Your task to perform on an android device: Where can I buy a nice beach towel? Image 0: 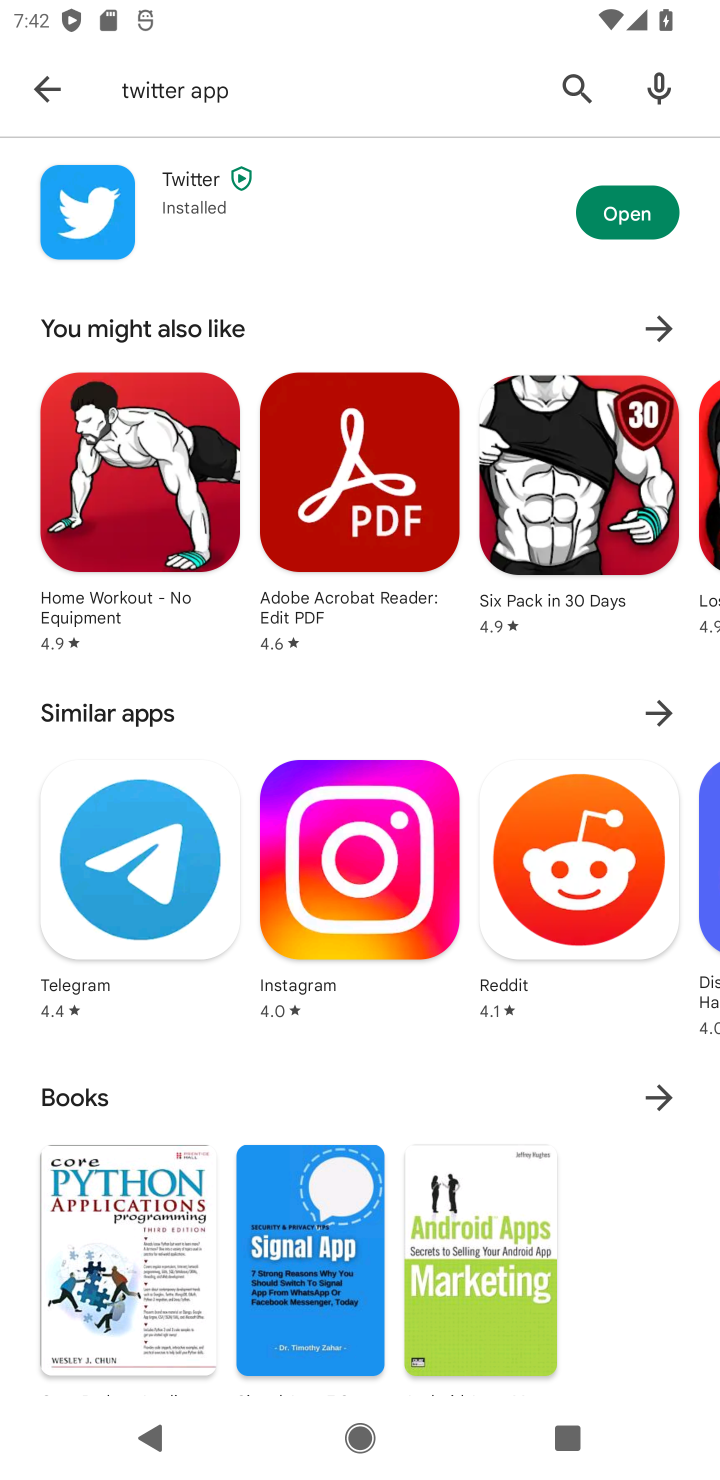
Step 0: press home button
Your task to perform on an android device: Where can I buy a nice beach towel? Image 1: 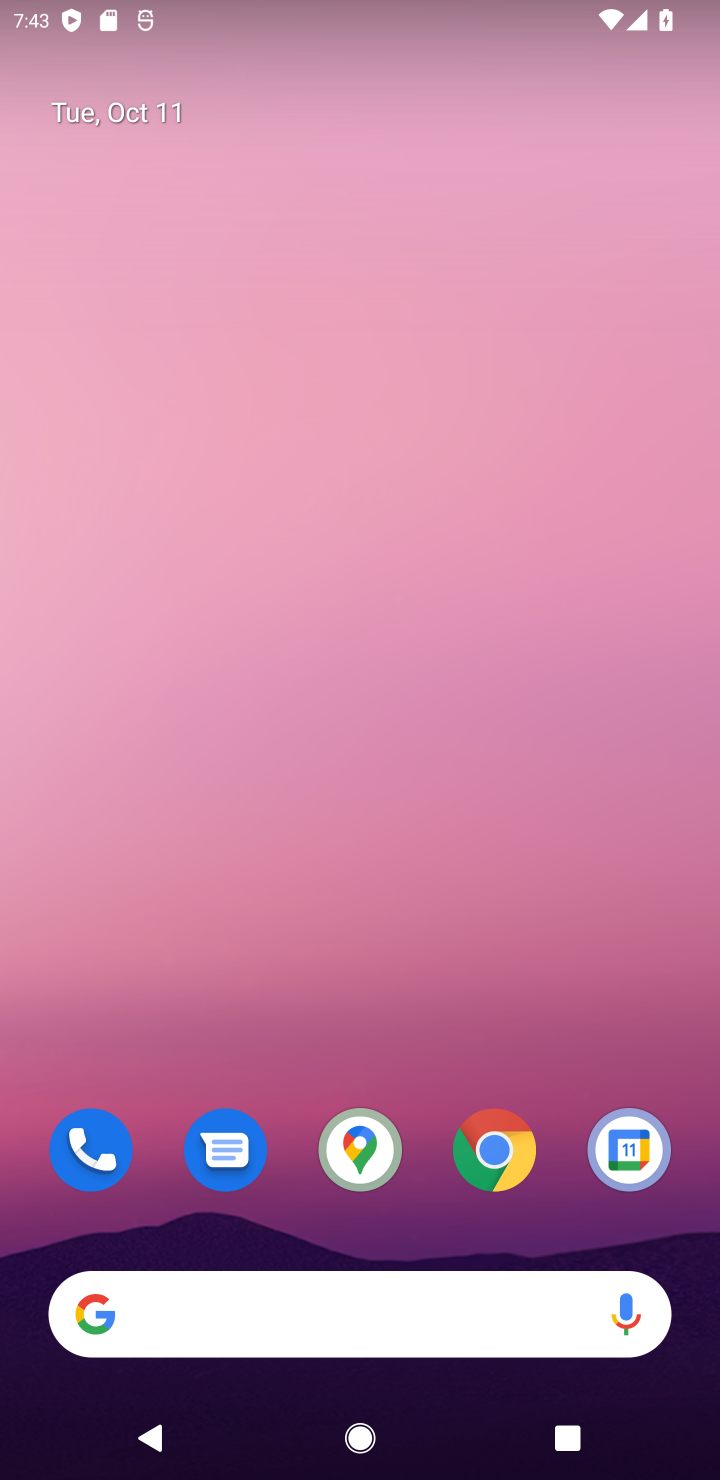
Step 1: click (487, 1149)
Your task to perform on an android device: Where can I buy a nice beach towel? Image 2: 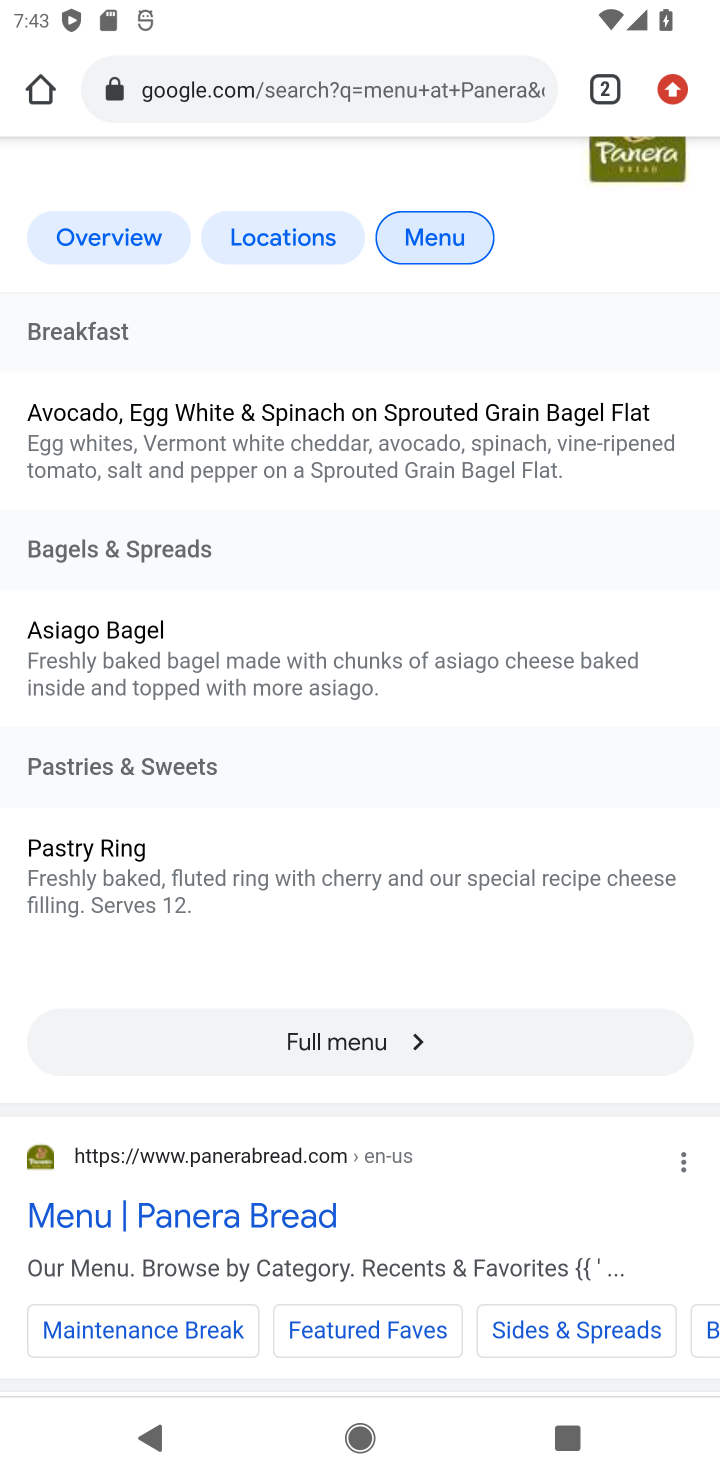
Step 2: click (187, 92)
Your task to perform on an android device: Where can I buy a nice beach towel? Image 3: 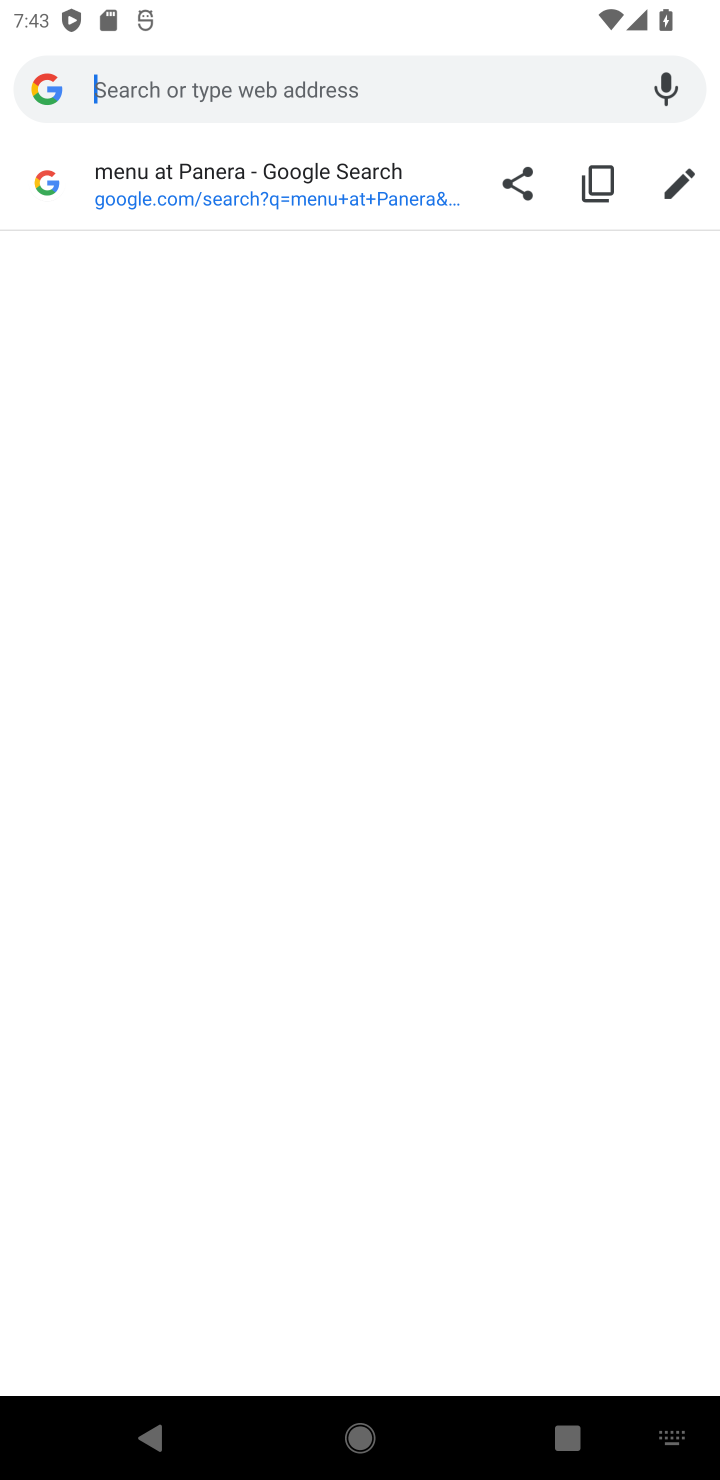
Step 3: type "nice beach towel"
Your task to perform on an android device: Where can I buy a nice beach towel? Image 4: 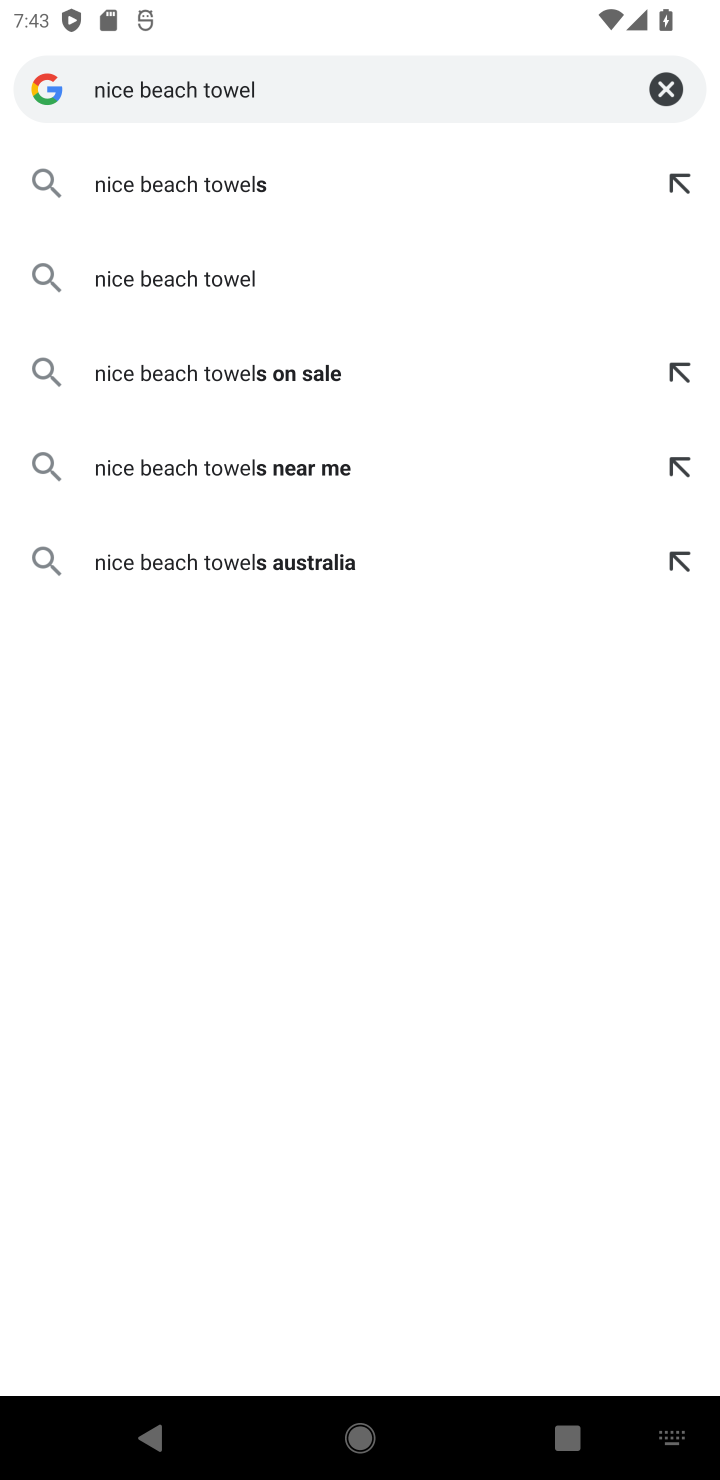
Step 4: click (134, 192)
Your task to perform on an android device: Where can I buy a nice beach towel? Image 5: 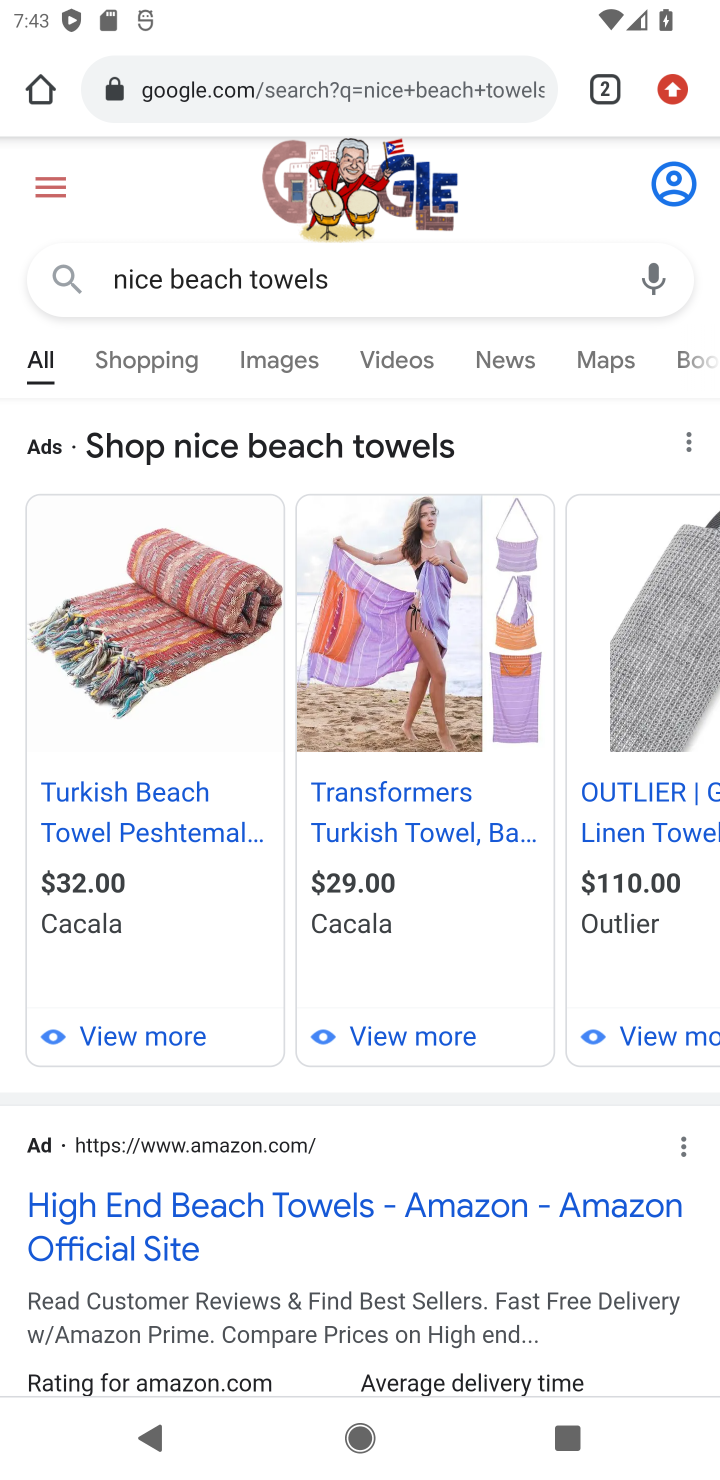
Step 5: click (136, 366)
Your task to perform on an android device: Where can I buy a nice beach towel? Image 6: 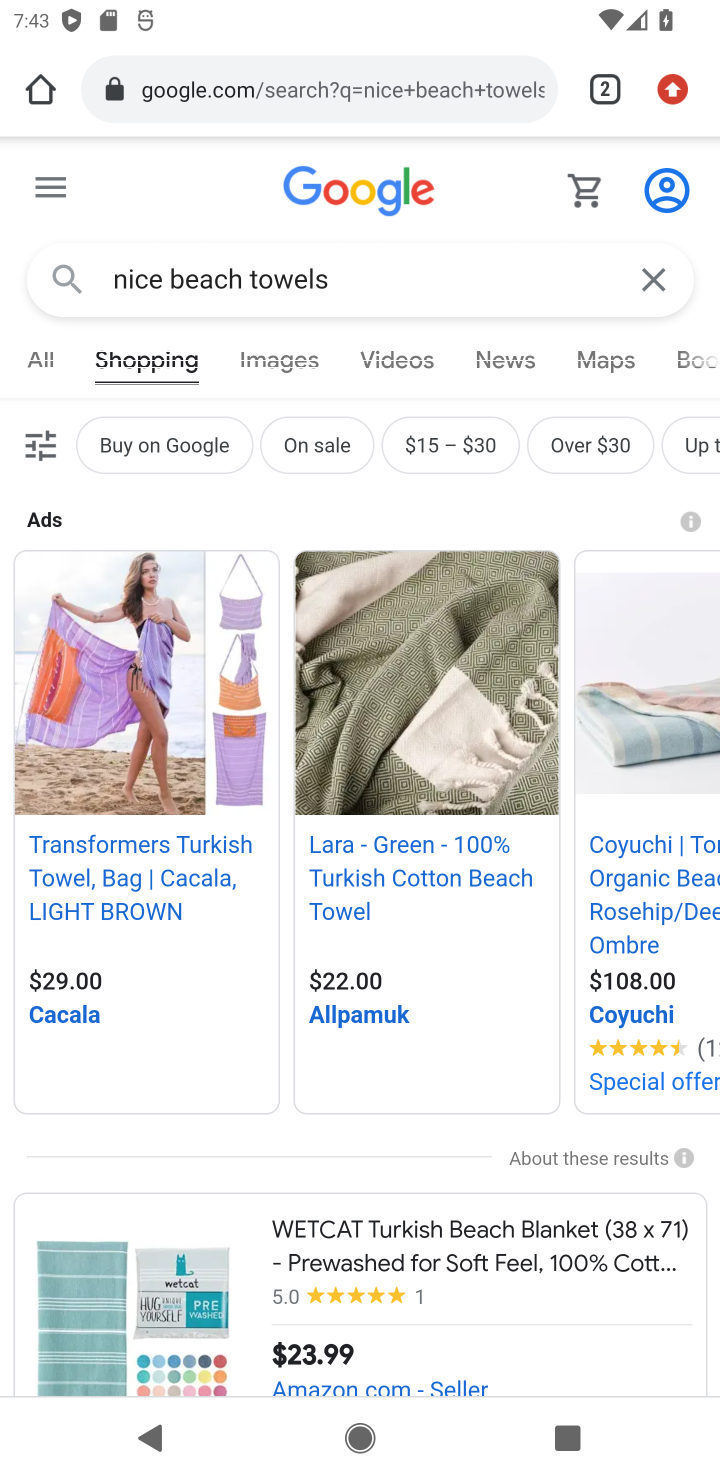
Step 6: task complete